Your task to perform on an android device: open a new tab in the chrome app Image 0: 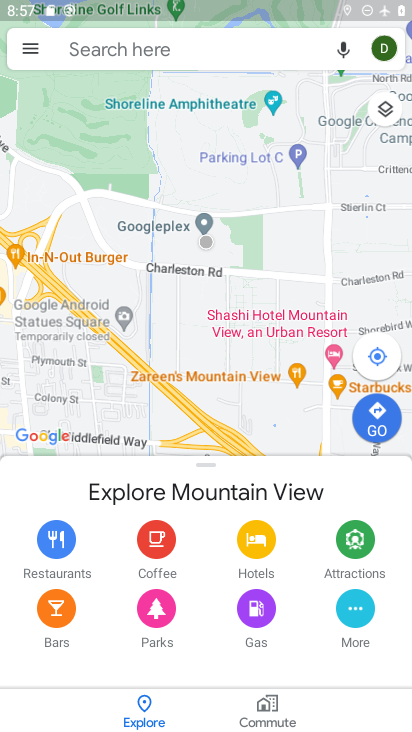
Step 0: press home button
Your task to perform on an android device: open a new tab in the chrome app Image 1: 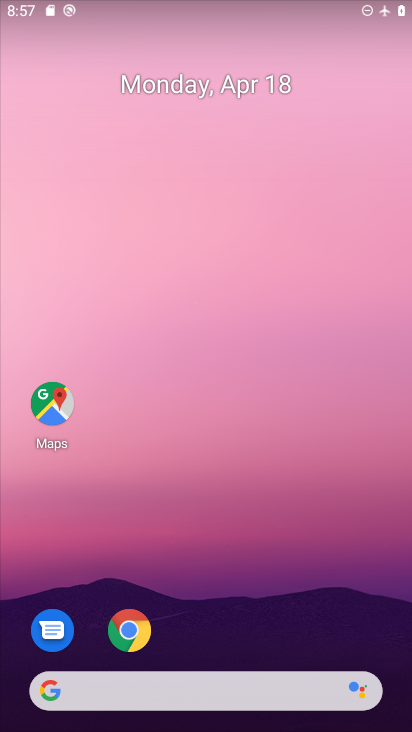
Step 1: click (133, 631)
Your task to perform on an android device: open a new tab in the chrome app Image 2: 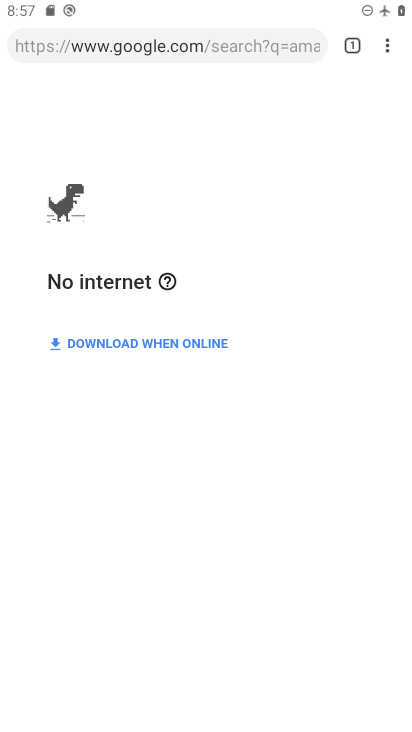
Step 2: click (382, 44)
Your task to perform on an android device: open a new tab in the chrome app Image 3: 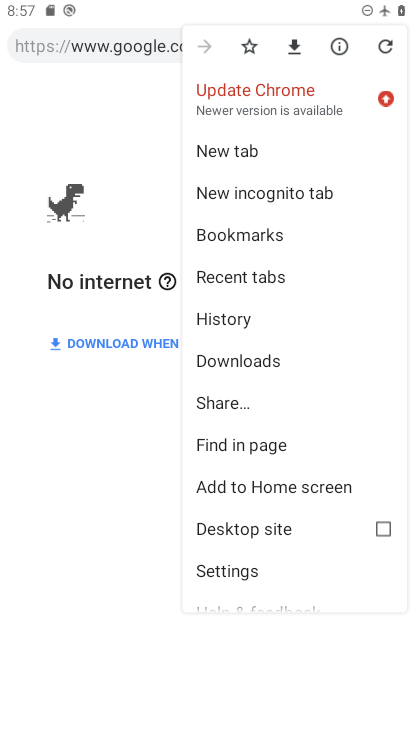
Step 3: click (260, 149)
Your task to perform on an android device: open a new tab in the chrome app Image 4: 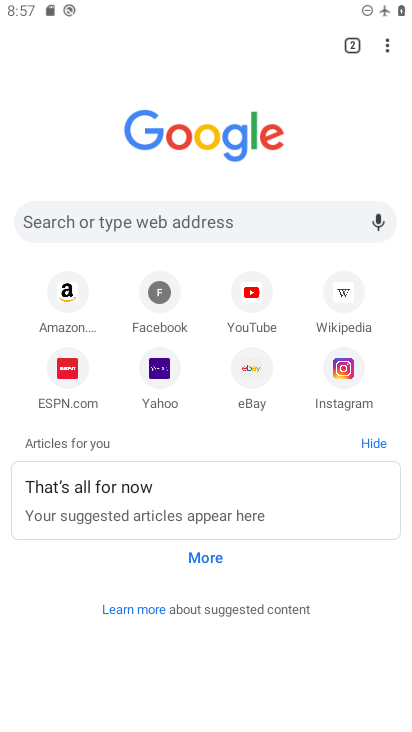
Step 4: task complete